Your task to perform on an android device: move a message to another label in the gmail app Image 0: 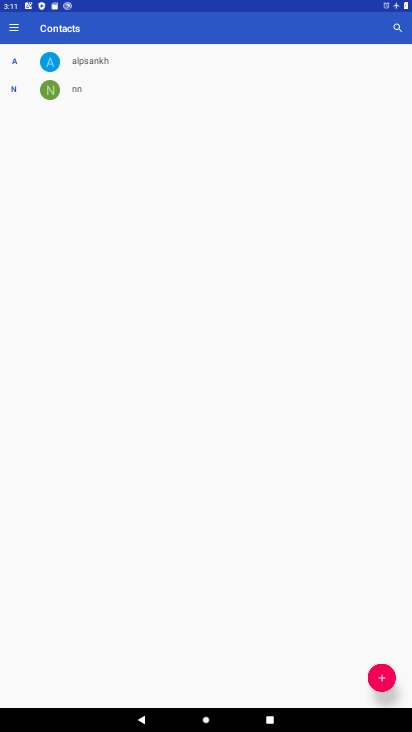
Step 0: press home button
Your task to perform on an android device: move a message to another label in the gmail app Image 1: 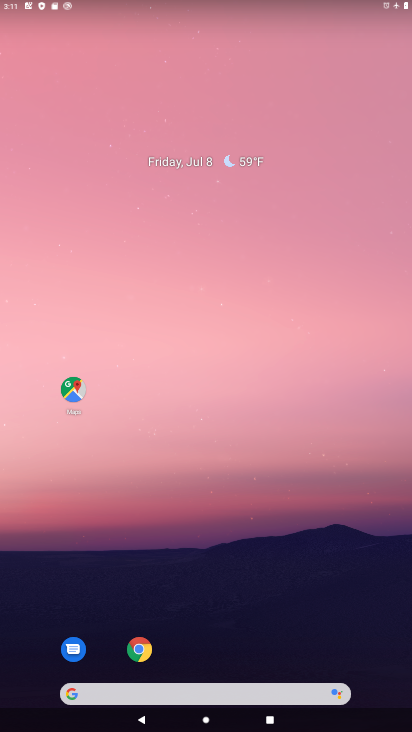
Step 1: drag from (235, 545) to (243, 174)
Your task to perform on an android device: move a message to another label in the gmail app Image 2: 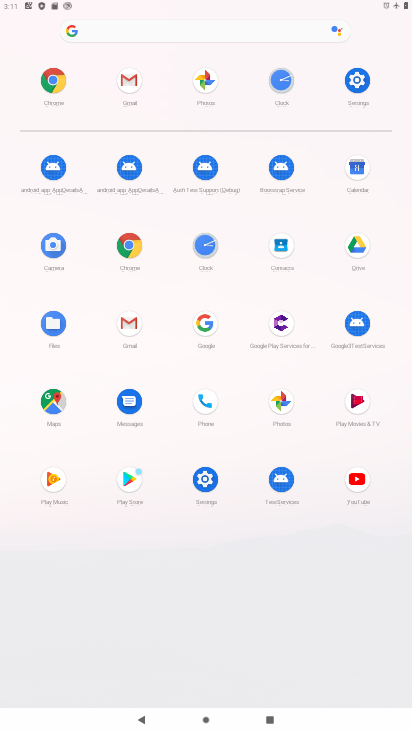
Step 2: click (132, 81)
Your task to perform on an android device: move a message to another label in the gmail app Image 3: 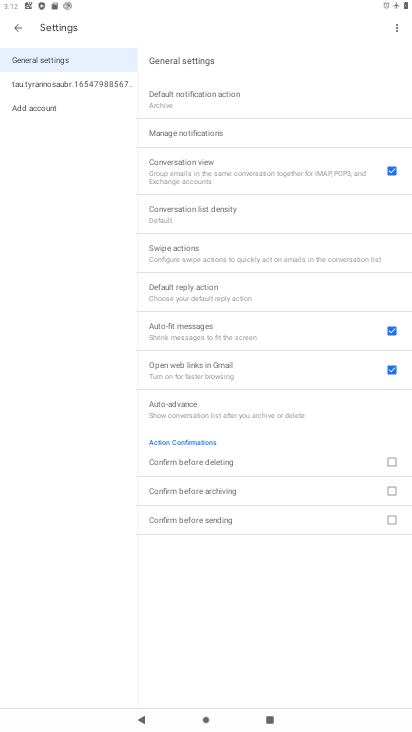
Step 3: click (11, 32)
Your task to perform on an android device: move a message to another label in the gmail app Image 4: 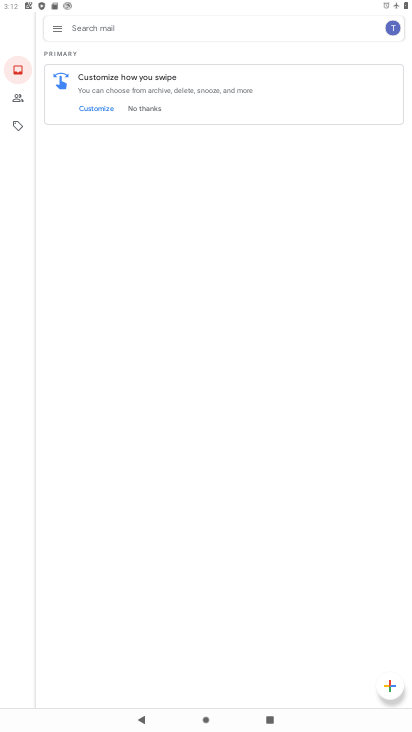
Step 4: click (64, 28)
Your task to perform on an android device: move a message to another label in the gmail app Image 5: 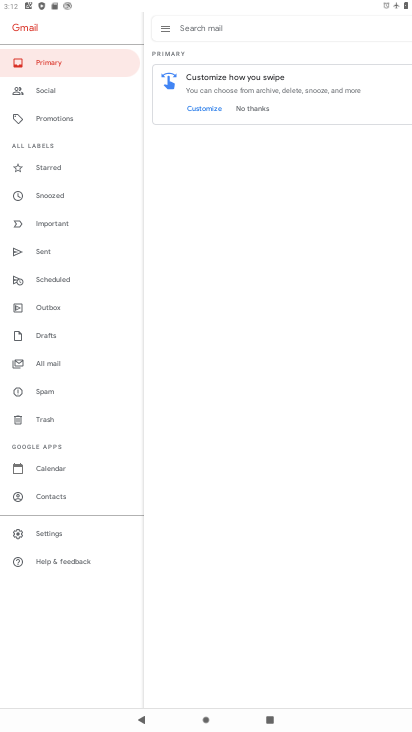
Step 5: click (36, 360)
Your task to perform on an android device: move a message to another label in the gmail app Image 6: 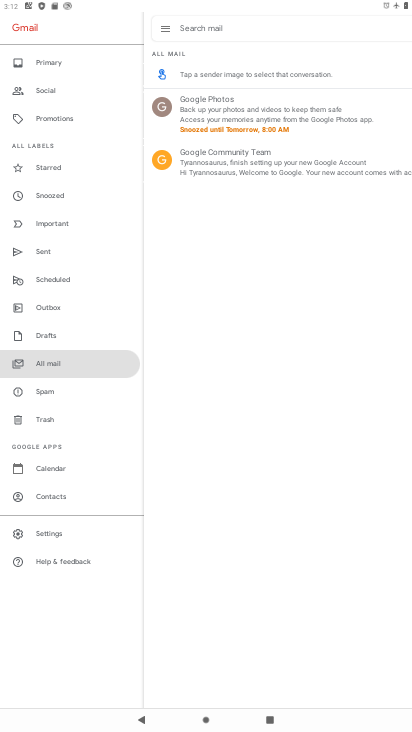
Step 6: click (285, 165)
Your task to perform on an android device: move a message to another label in the gmail app Image 7: 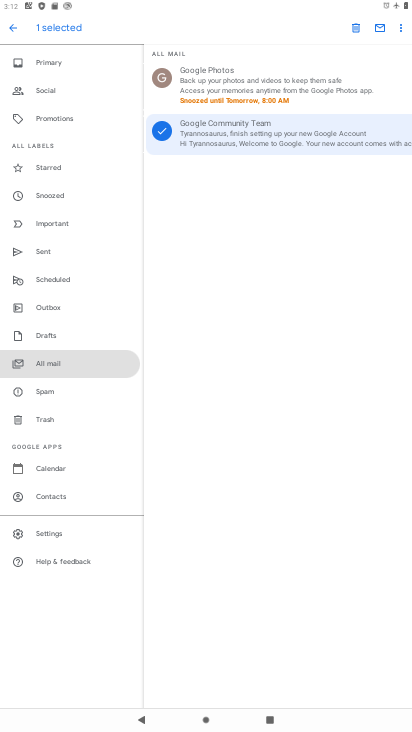
Step 7: click (402, 20)
Your task to perform on an android device: move a message to another label in the gmail app Image 8: 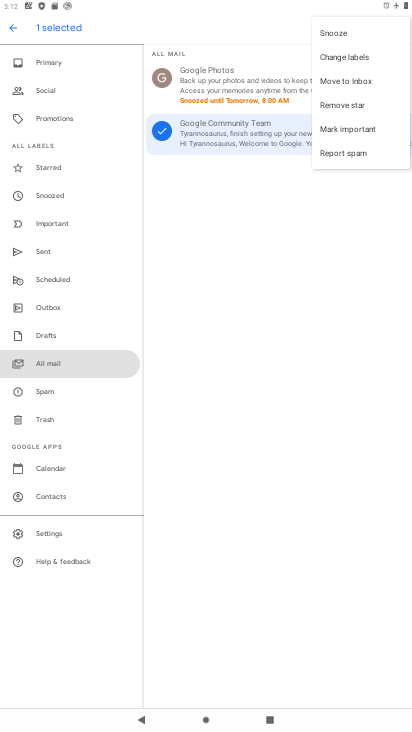
Step 8: click (363, 59)
Your task to perform on an android device: move a message to another label in the gmail app Image 9: 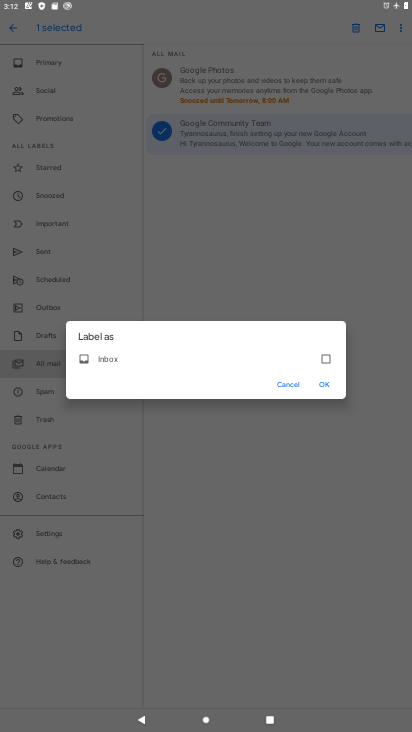
Step 9: click (330, 359)
Your task to perform on an android device: move a message to another label in the gmail app Image 10: 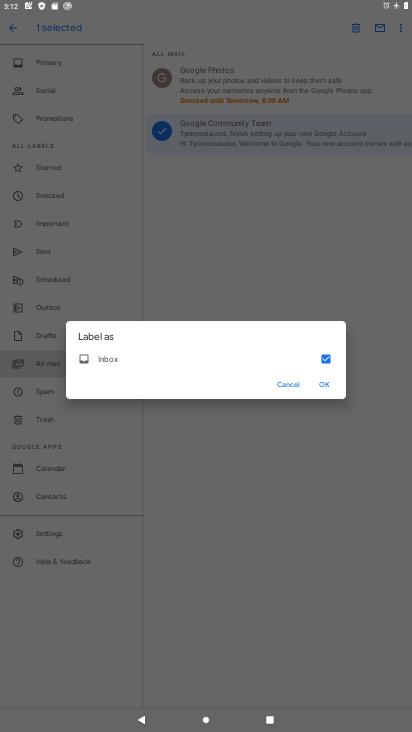
Step 10: click (328, 386)
Your task to perform on an android device: move a message to another label in the gmail app Image 11: 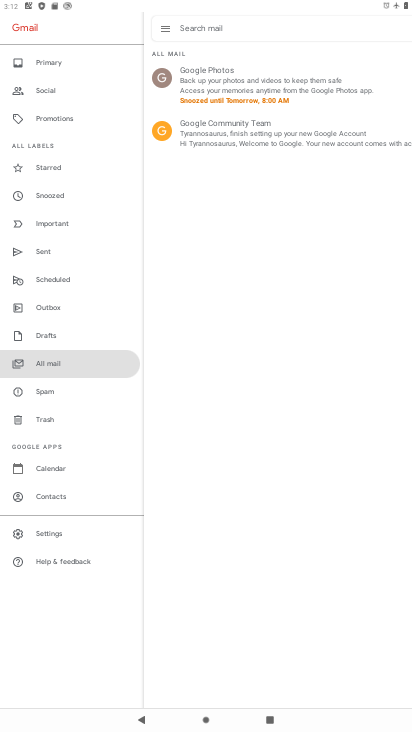
Step 11: task complete